Your task to perform on an android device: Open Google Maps Image 0: 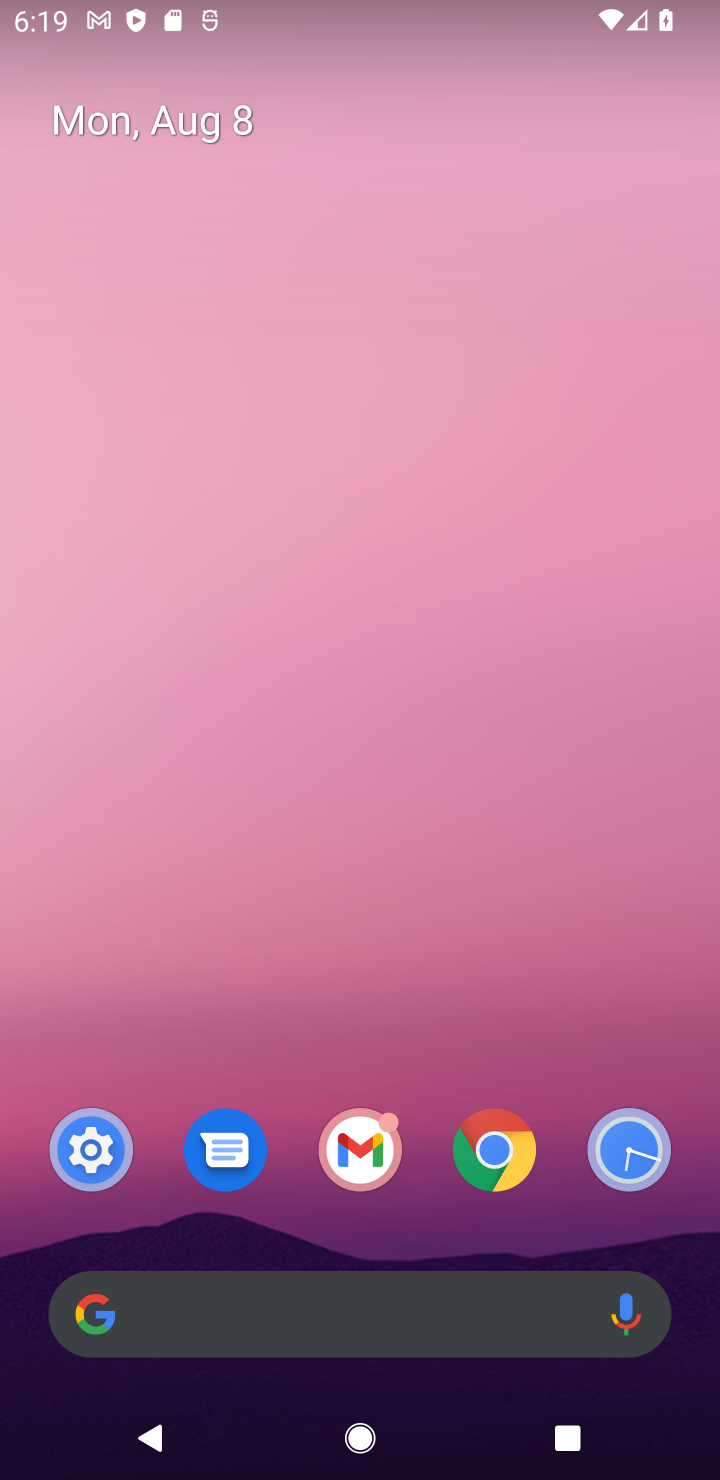
Step 0: drag from (432, 1235) to (443, 166)
Your task to perform on an android device: Open Google Maps Image 1: 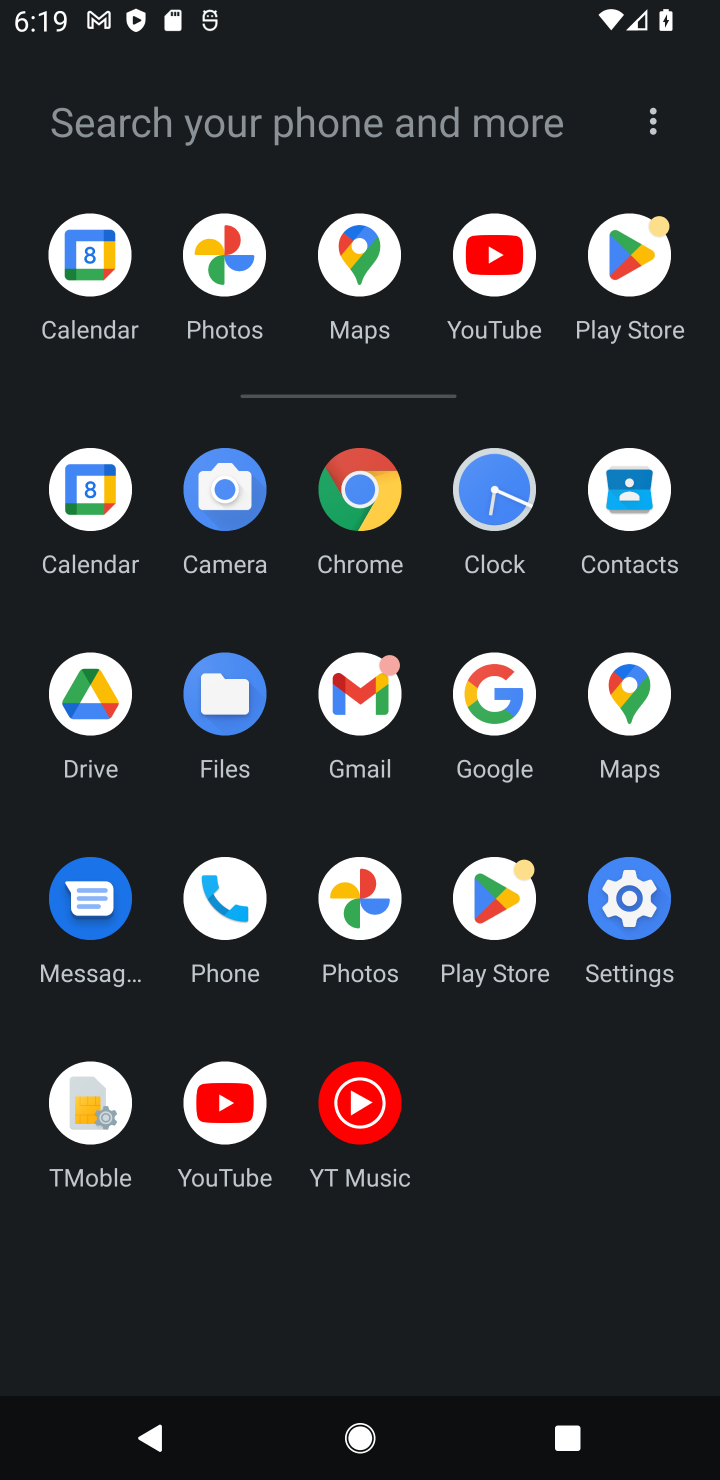
Step 1: click (338, 282)
Your task to perform on an android device: Open Google Maps Image 2: 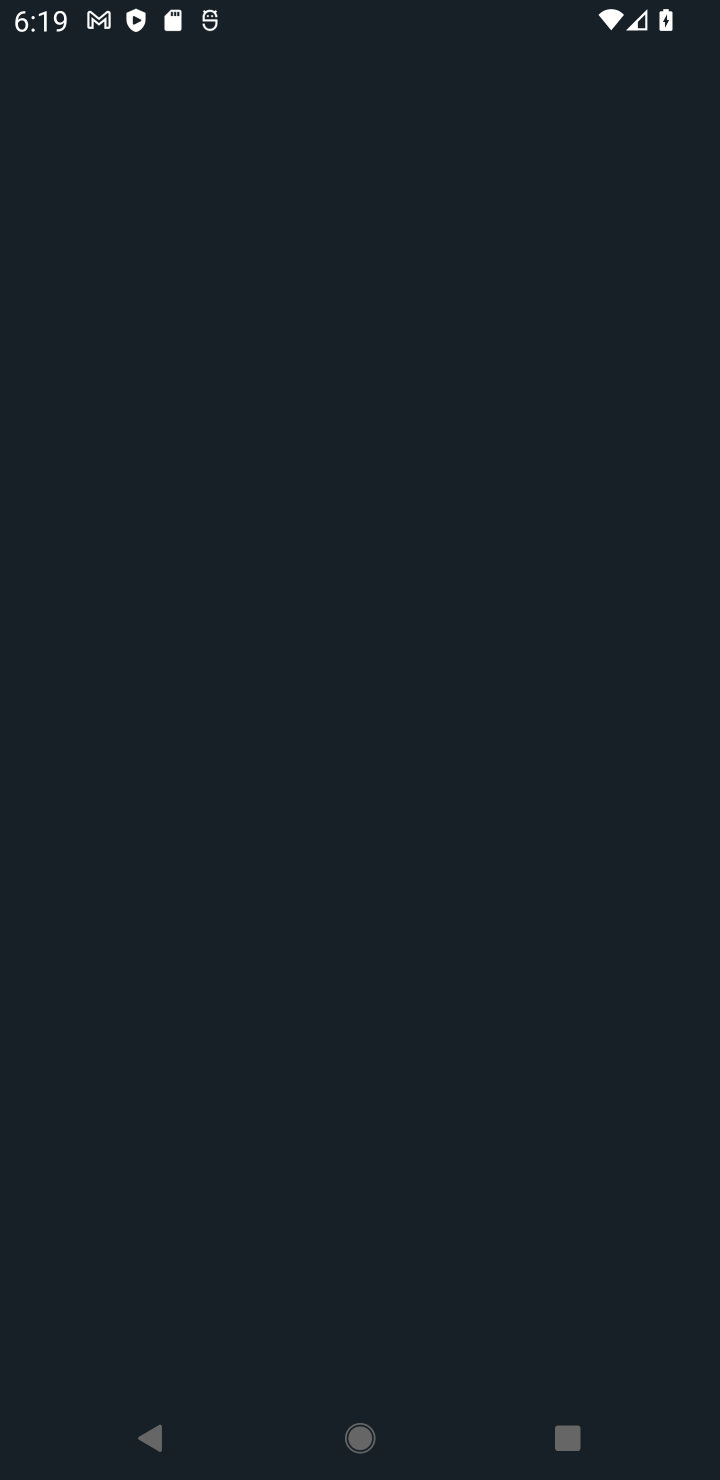
Step 2: task complete